Your task to perform on an android device: turn on wifi Image 0: 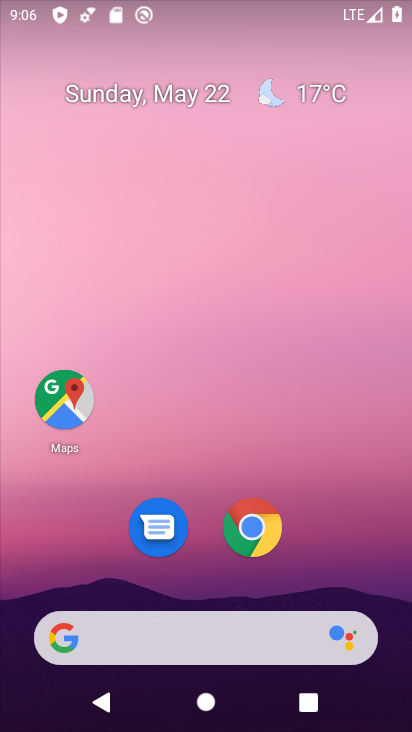
Step 0: drag from (332, 555) to (209, 3)
Your task to perform on an android device: turn on wifi Image 1: 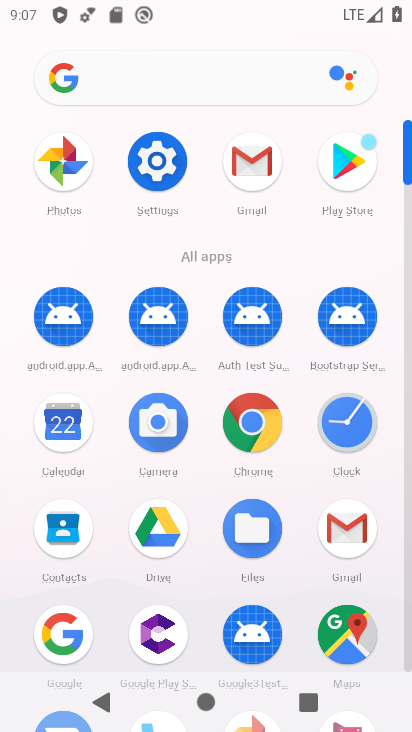
Step 1: click (153, 164)
Your task to perform on an android device: turn on wifi Image 2: 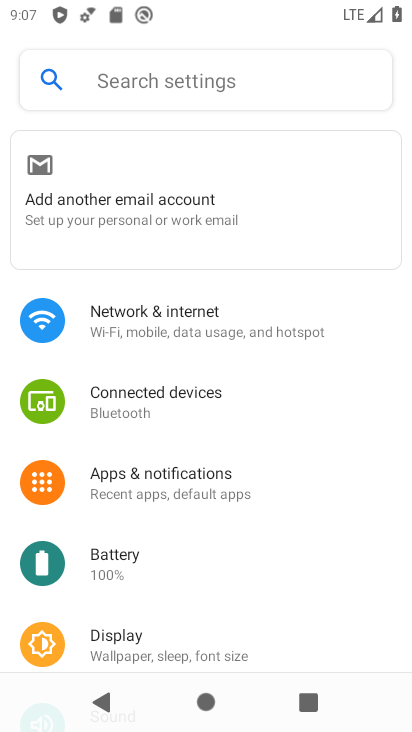
Step 2: click (155, 316)
Your task to perform on an android device: turn on wifi Image 3: 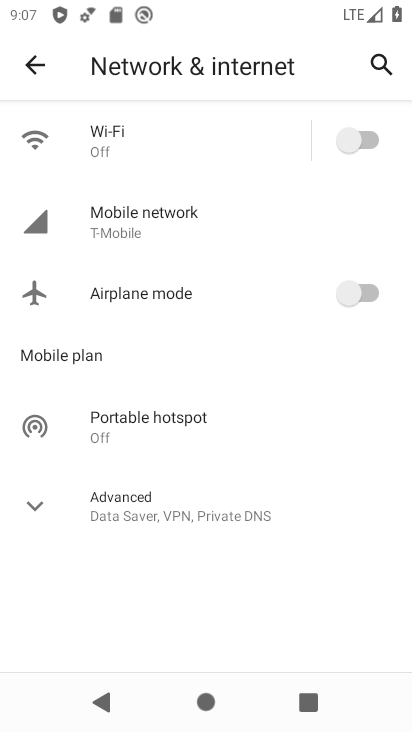
Step 3: click (353, 137)
Your task to perform on an android device: turn on wifi Image 4: 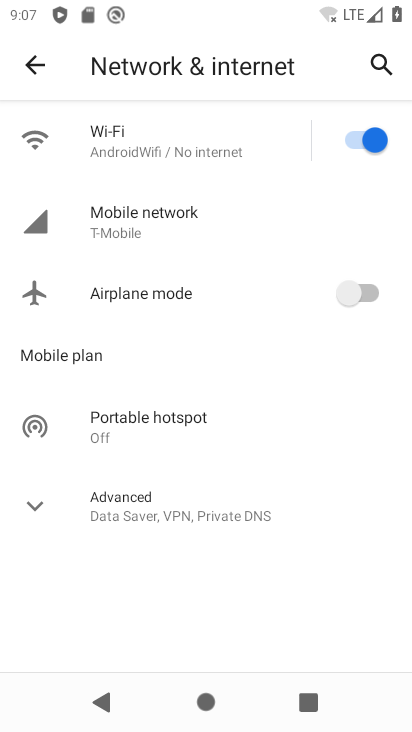
Step 4: task complete